Your task to perform on an android device: Go to CNN.com Image 0: 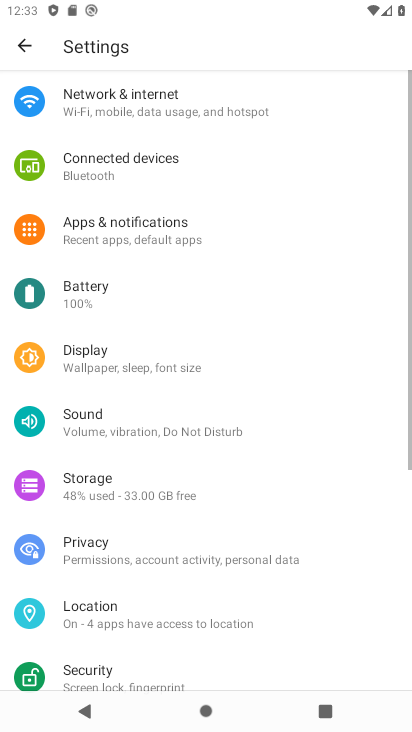
Step 0: press home button
Your task to perform on an android device: Go to CNN.com Image 1: 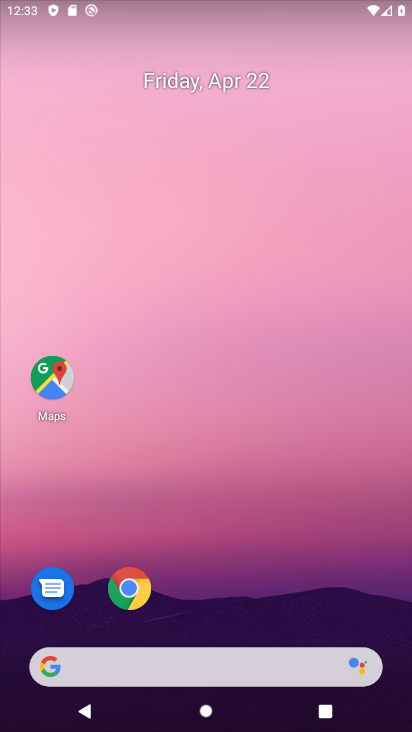
Step 1: drag from (338, 585) to (322, 148)
Your task to perform on an android device: Go to CNN.com Image 2: 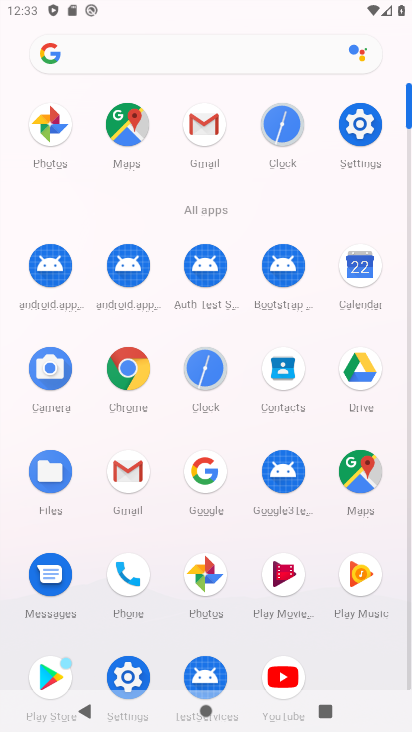
Step 2: click (124, 366)
Your task to perform on an android device: Go to CNN.com Image 3: 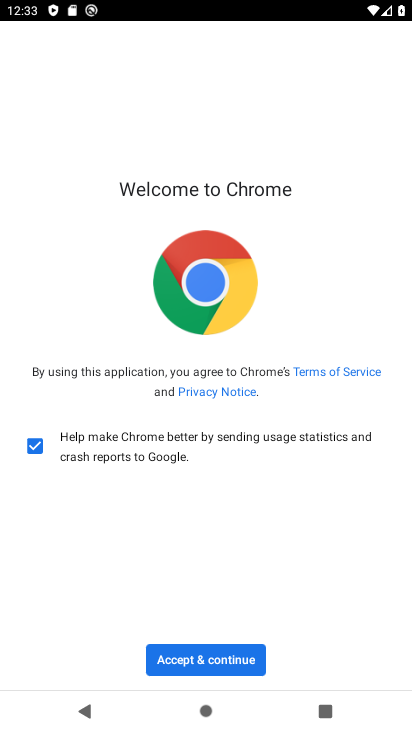
Step 3: click (191, 667)
Your task to perform on an android device: Go to CNN.com Image 4: 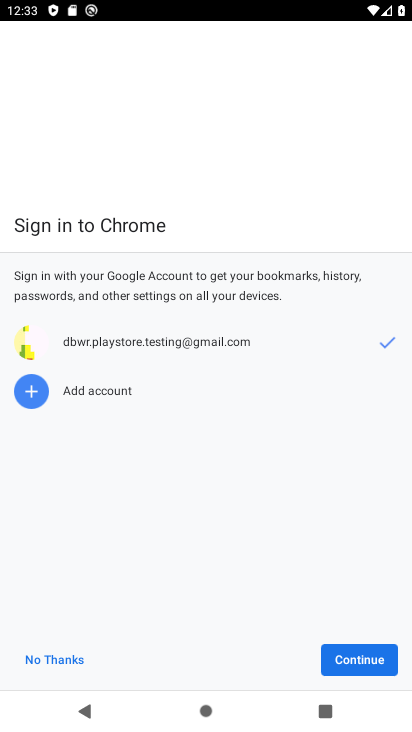
Step 4: click (332, 664)
Your task to perform on an android device: Go to CNN.com Image 5: 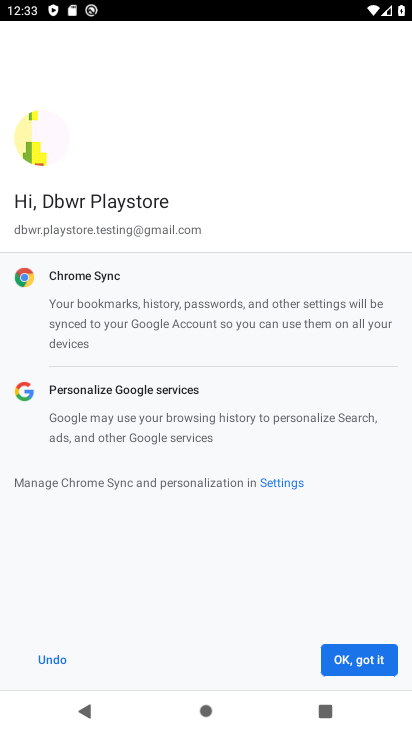
Step 5: click (332, 664)
Your task to perform on an android device: Go to CNN.com Image 6: 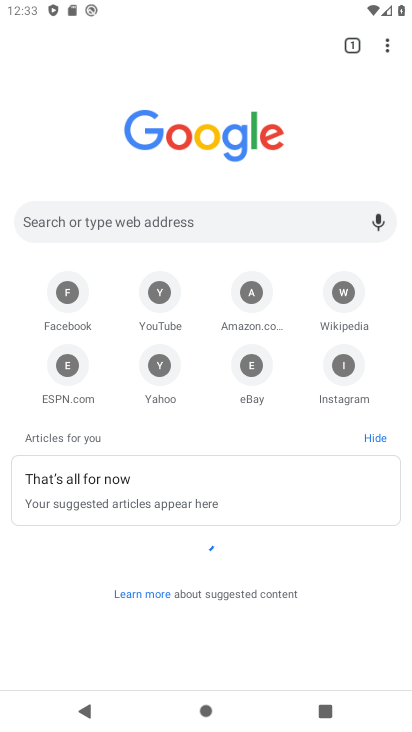
Step 6: click (194, 215)
Your task to perform on an android device: Go to CNN.com Image 7: 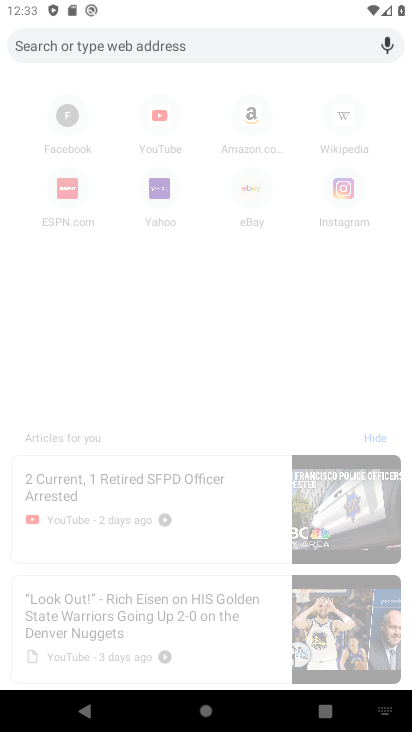
Step 7: type "cnn.com"
Your task to perform on an android device: Go to CNN.com Image 8: 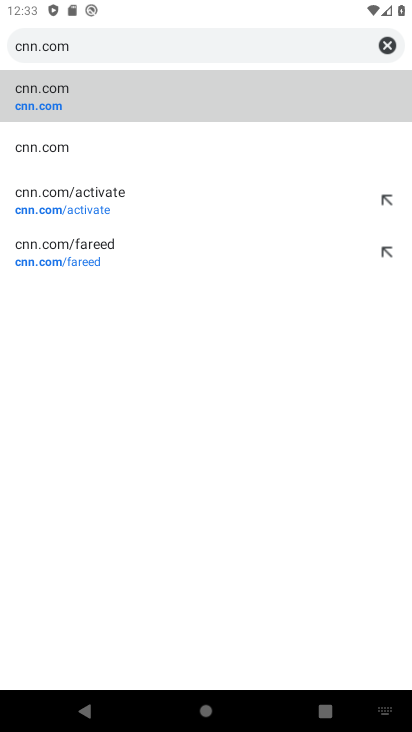
Step 8: click (44, 105)
Your task to perform on an android device: Go to CNN.com Image 9: 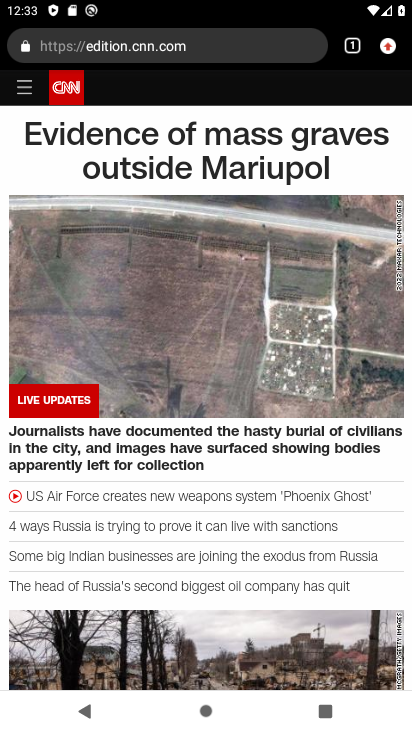
Step 9: task complete